Your task to perform on an android device: turn pop-ups off in chrome Image 0: 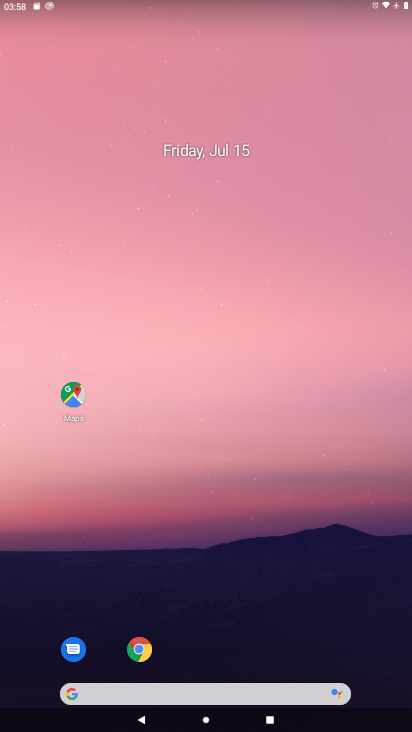
Step 0: click (139, 651)
Your task to perform on an android device: turn pop-ups off in chrome Image 1: 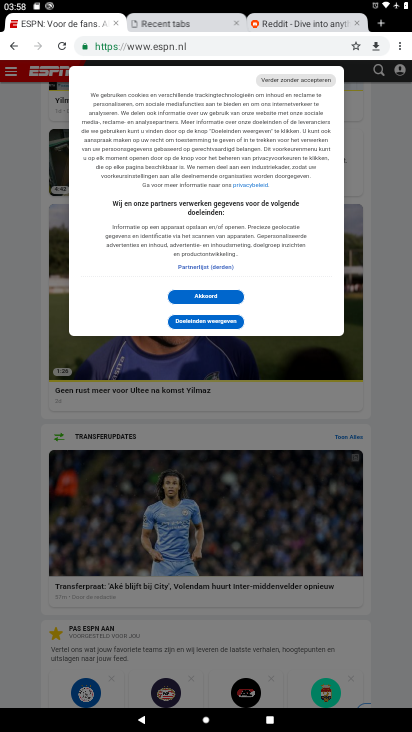
Step 1: click (202, 293)
Your task to perform on an android device: turn pop-ups off in chrome Image 2: 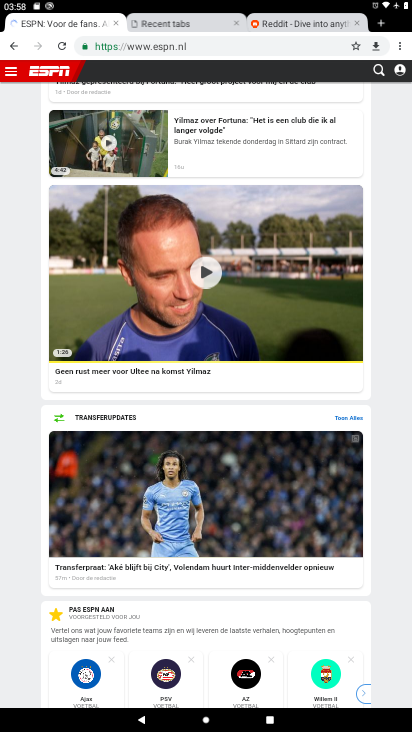
Step 2: click (398, 50)
Your task to perform on an android device: turn pop-ups off in chrome Image 3: 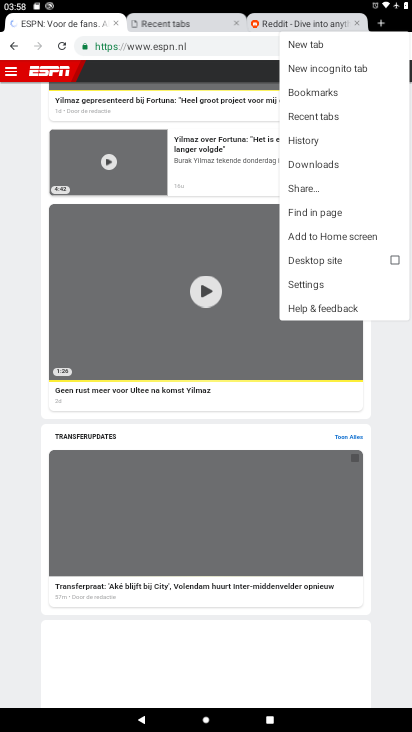
Step 3: click (302, 281)
Your task to perform on an android device: turn pop-ups off in chrome Image 4: 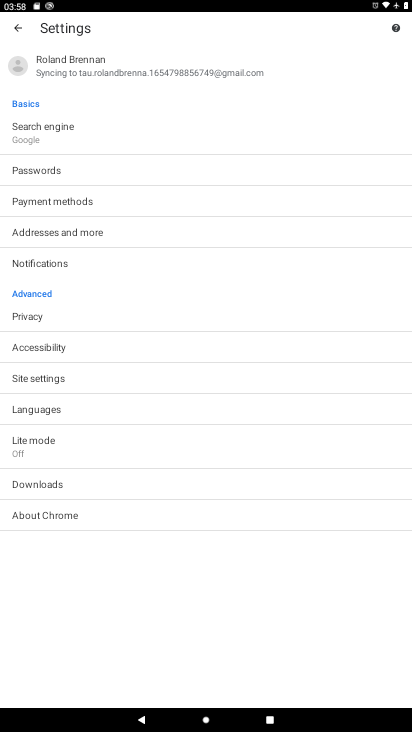
Step 4: click (37, 376)
Your task to perform on an android device: turn pop-ups off in chrome Image 5: 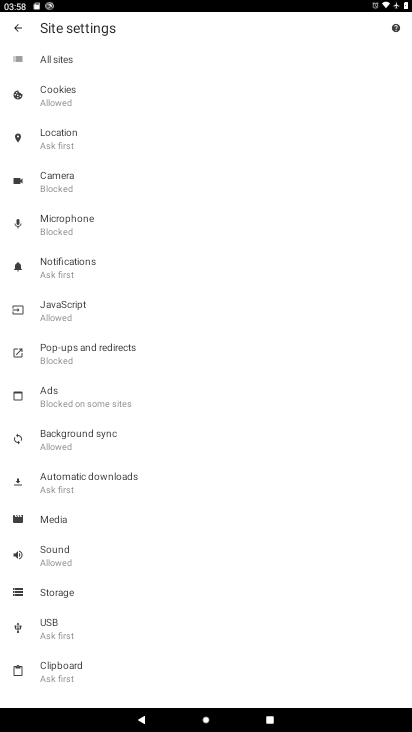
Step 5: click (60, 348)
Your task to perform on an android device: turn pop-ups off in chrome Image 6: 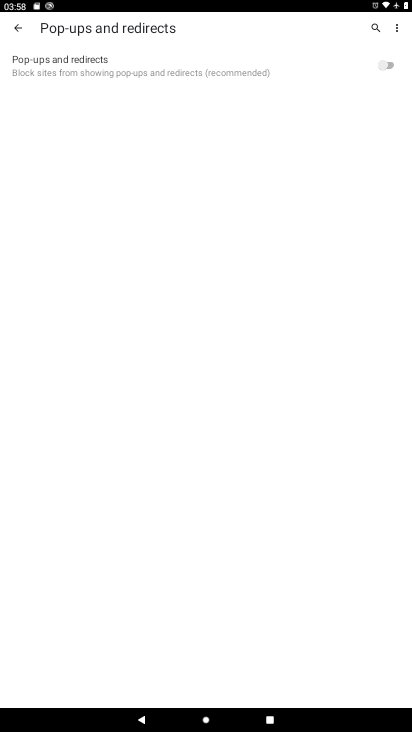
Step 6: task complete